Your task to perform on an android device: Open eBay Image 0: 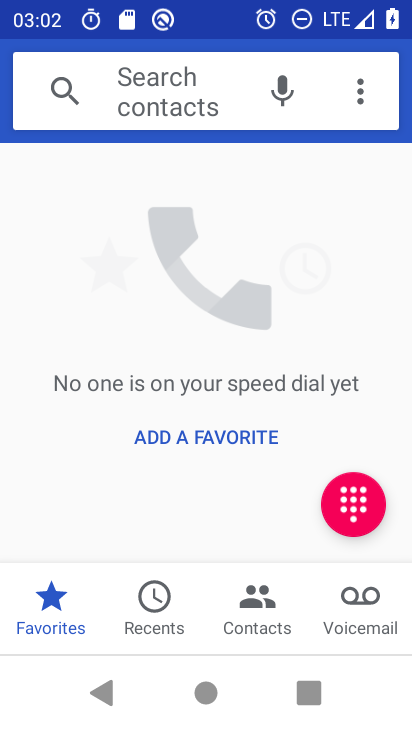
Step 0: press home button
Your task to perform on an android device: Open eBay Image 1: 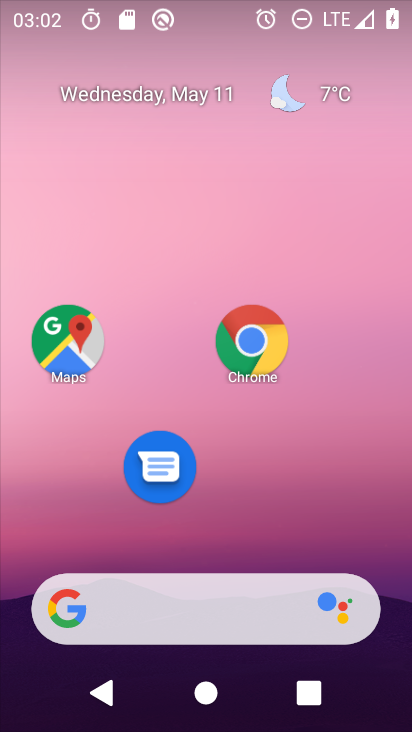
Step 1: drag from (161, 616) to (321, 111)
Your task to perform on an android device: Open eBay Image 2: 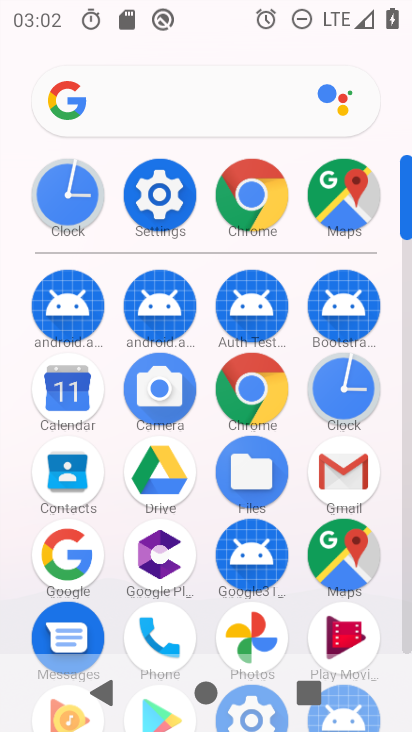
Step 2: click (243, 201)
Your task to perform on an android device: Open eBay Image 3: 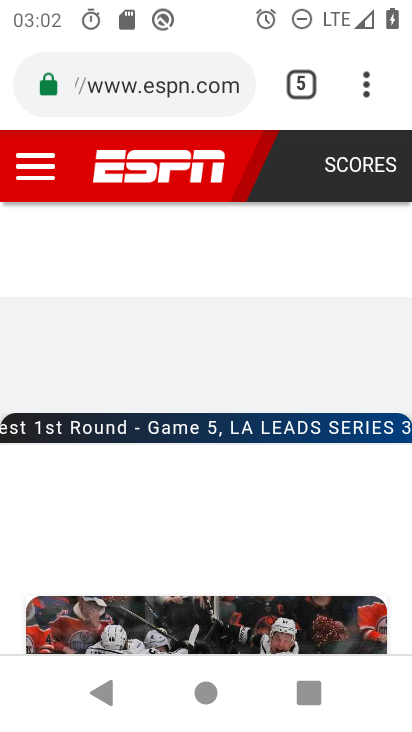
Step 3: drag from (366, 89) to (158, 166)
Your task to perform on an android device: Open eBay Image 4: 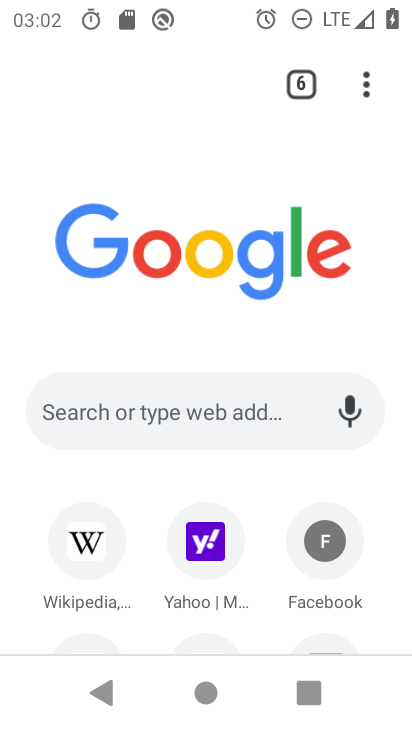
Step 4: drag from (175, 516) to (361, 126)
Your task to perform on an android device: Open eBay Image 5: 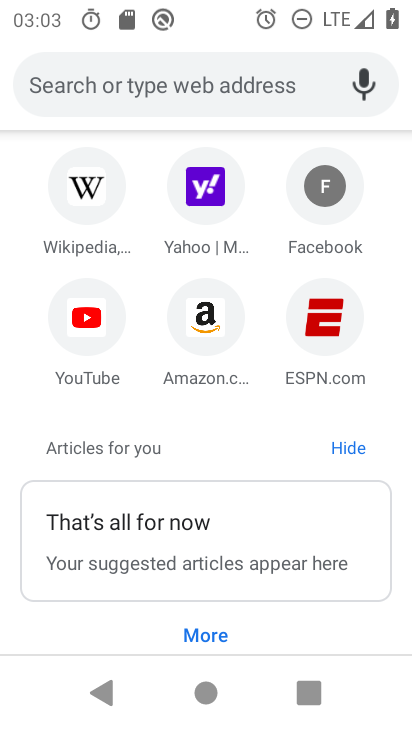
Step 5: drag from (262, 255) to (169, 596)
Your task to perform on an android device: Open eBay Image 6: 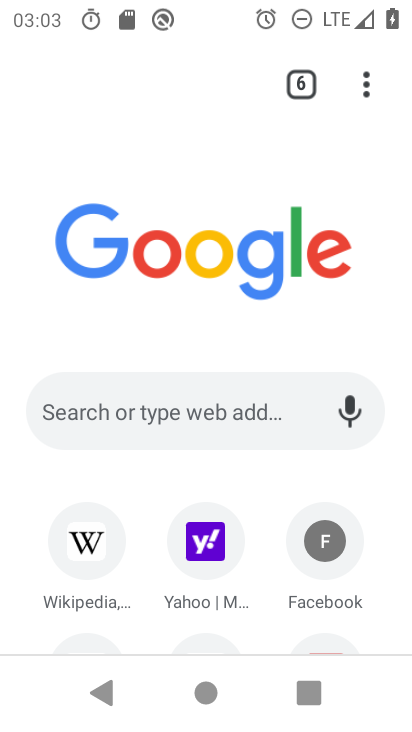
Step 6: click (101, 408)
Your task to perform on an android device: Open eBay Image 7: 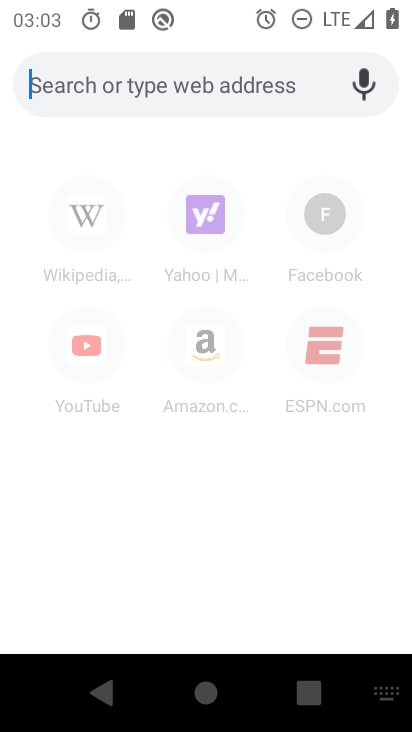
Step 7: type "ebay"
Your task to perform on an android device: Open eBay Image 8: 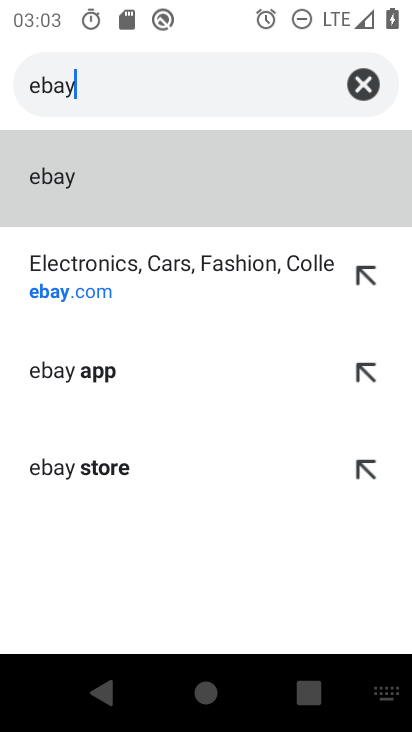
Step 8: click (82, 253)
Your task to perform on an android device: Open eBay Image 9: 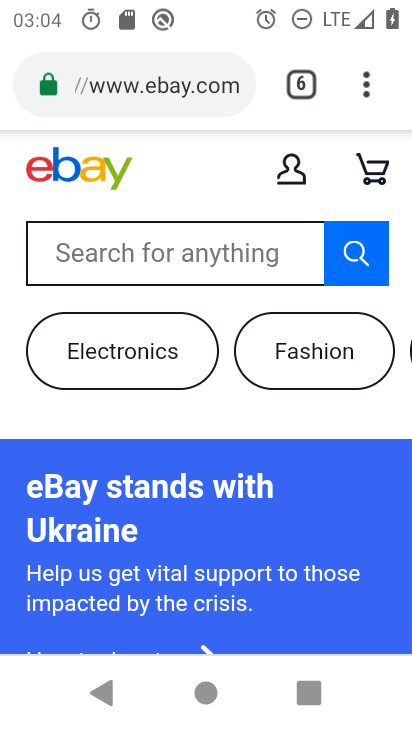
Step 9: task complete